Your task to perform on an android device: Search for razer blade on ebay, select the first entry, and add it to the cart. Image 0: 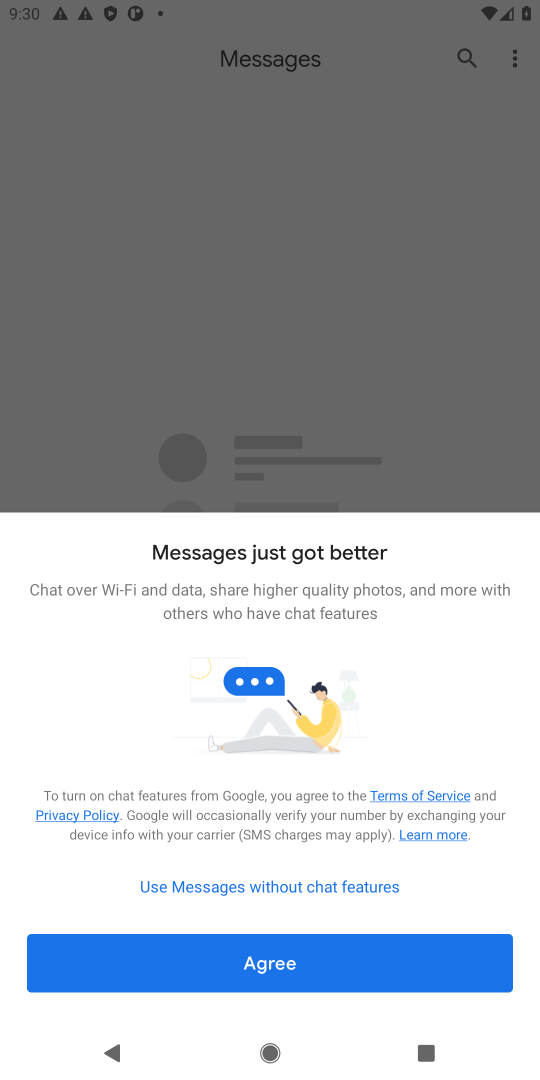
Step 0: press home button
Your task to perform on an android device: Search for razer blade on ebay, select the first entry, and add it to the cart. Image 1: 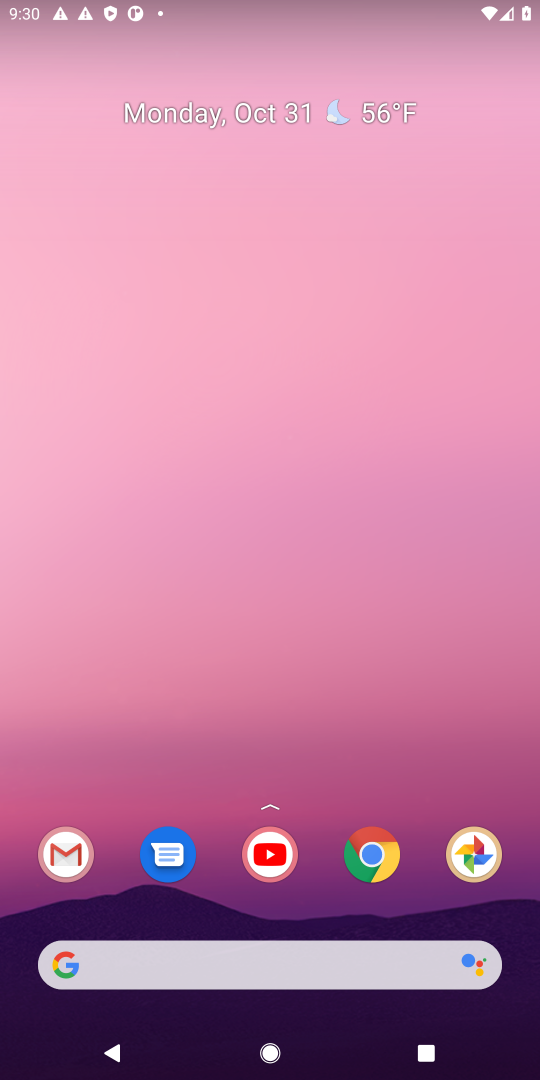
Step 1: click (283, 964)
Your task to perform on an android device: Search for razer blade on ebay, select the first entry, and add it to the cart. Image 2: 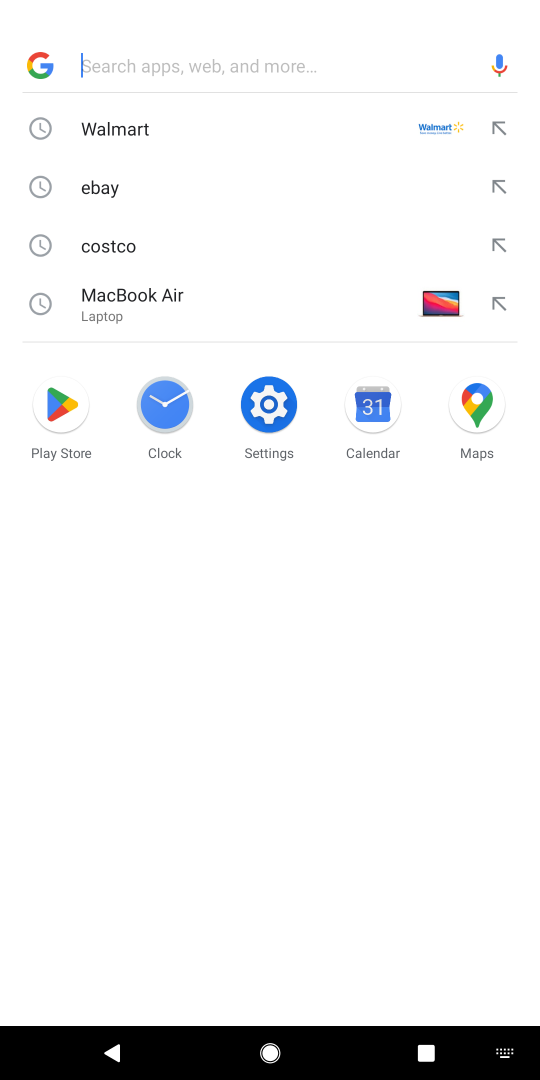
Step 2: type "razzer blade"
Your task to perform on an android device: Search for razer blade on ebay, select the first entry, and add it to the cart. Image 3: 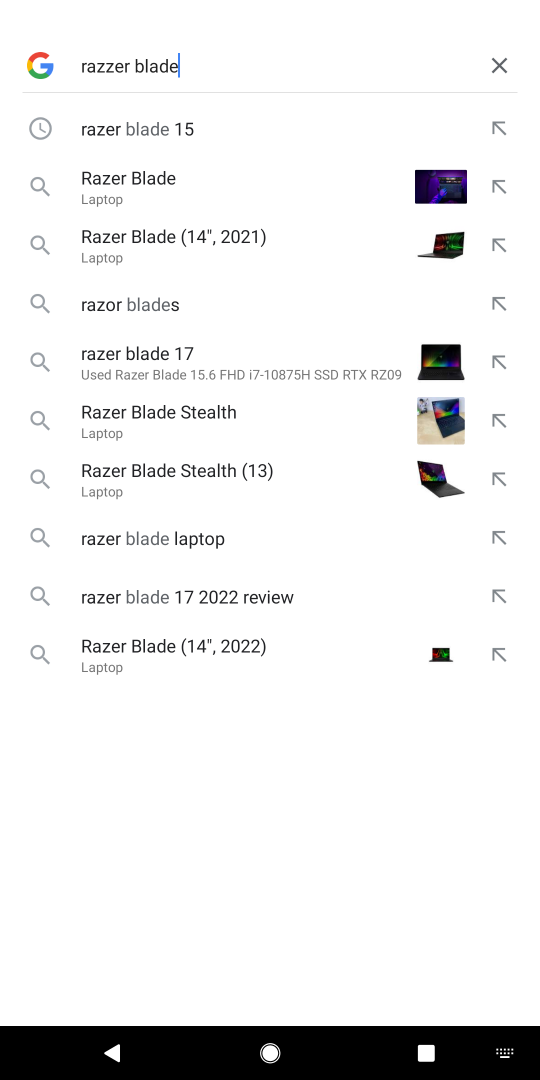
Step 3: click (198, 293)
Your task to perform on an android device: Search for razer blade on ebay, select the first entry, and add it to the cart. Image 4: 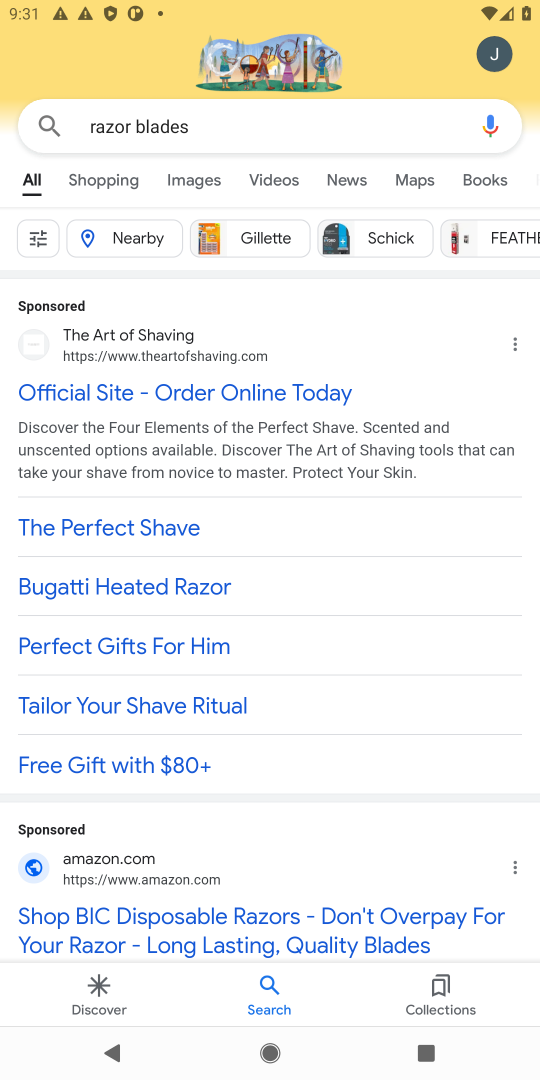
Step 4: click (137, 388)
Your task to perform on an android device: Search for razer blade on ebay, select the first entry, and add it to the cart. Image 5: 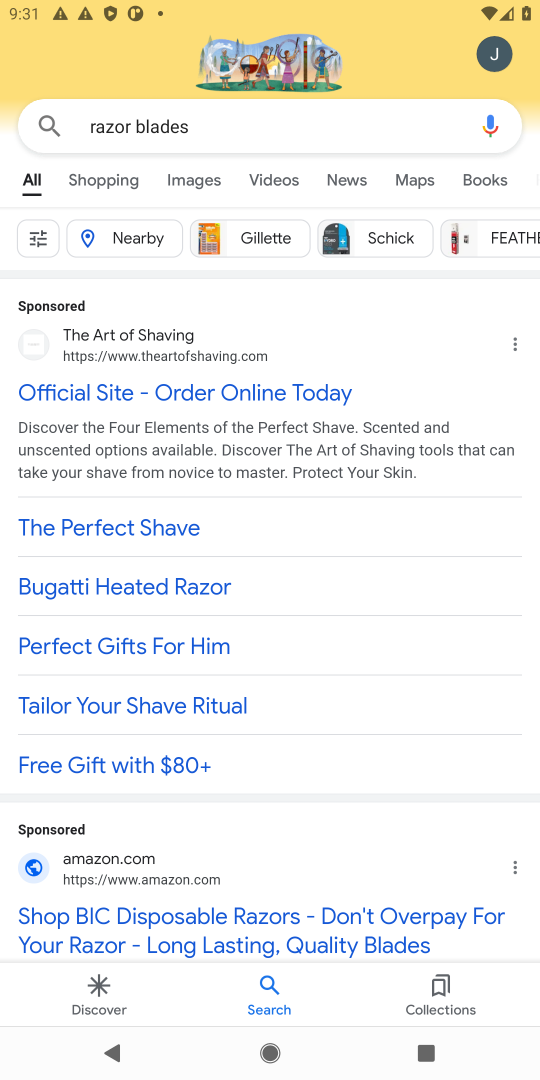
Step 5: task complete